Your task to perform on an android device: empty trash in google photos Image 0: 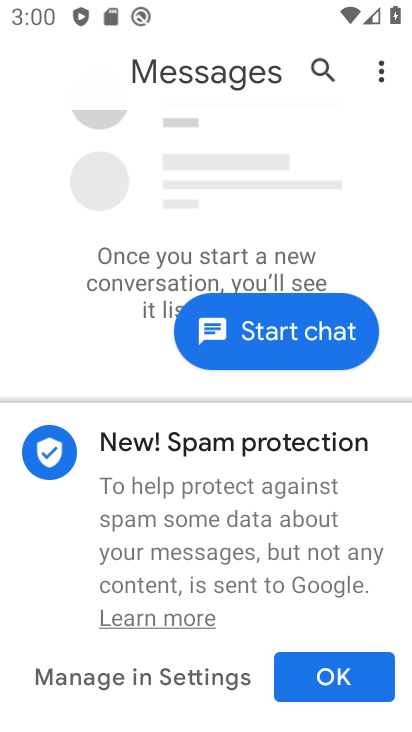
Step 0: press home button
Your task to perform on an android device: empty trash in google photos Image 1: 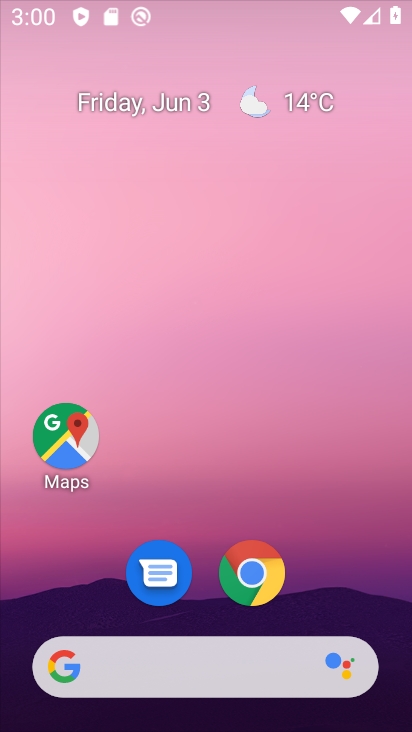
Step 1: drag from (287, 689) to (298, 175)
Your task to perform on an android device: empty trash in google photos Image 2: 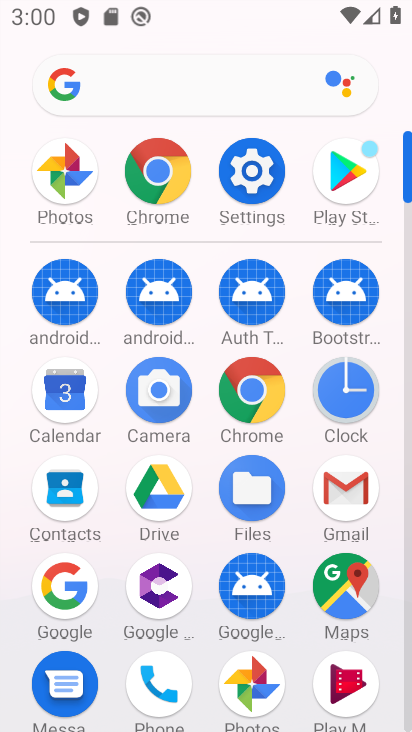
Step 2: click (246, 669)
Your task to perform on an android device: empty trash in google photos Image 3: 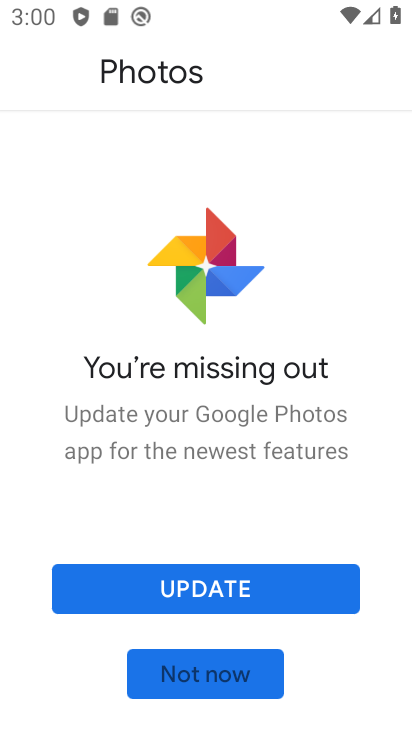
Step 3: click (239, 598)
Your task to perform on an android device: empty trash in google photos Image 4: 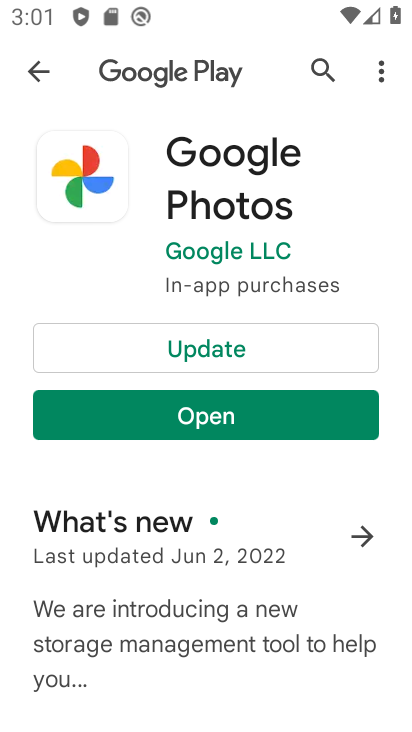
Step 4: click (227, 357)
Your task to perform on an android device: empty trash in google photos Image 5: 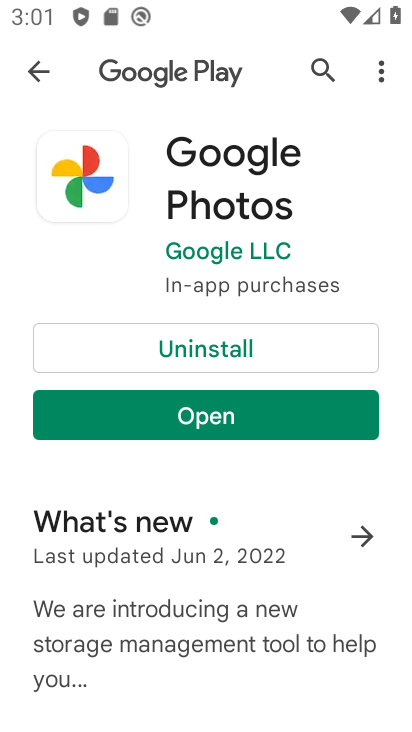
Step 5: click (295, 407)
Your task to perform on an android device: empty trash in google photos Image 6: 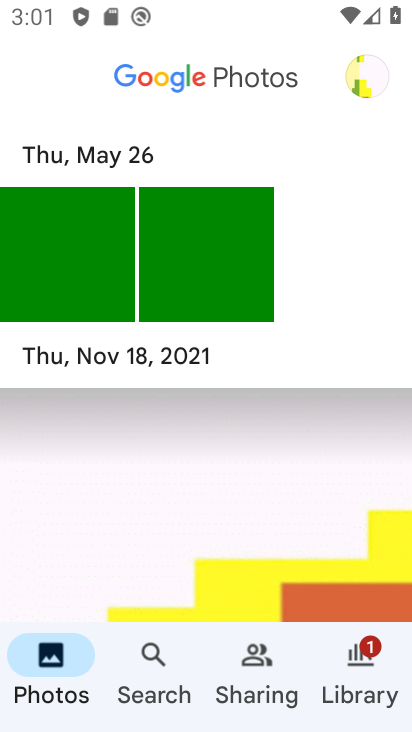
Step 6: click (367, 81)
Your task to perform on an android device: empty trash in google photos Image 7: 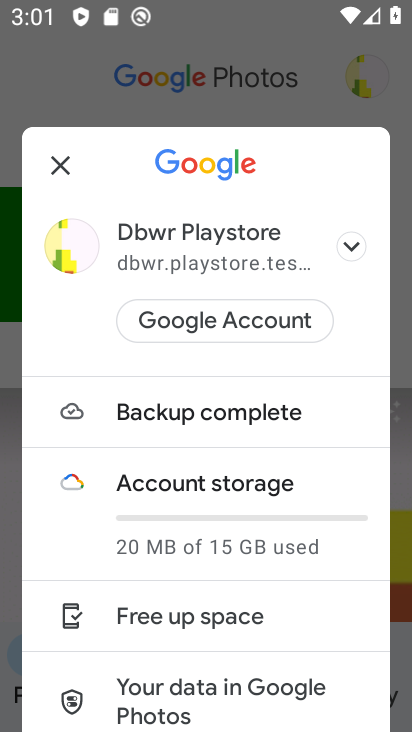
Step 7: click (62, 154)
Your task to perform on an android device: empty trash in google photos Image 8: 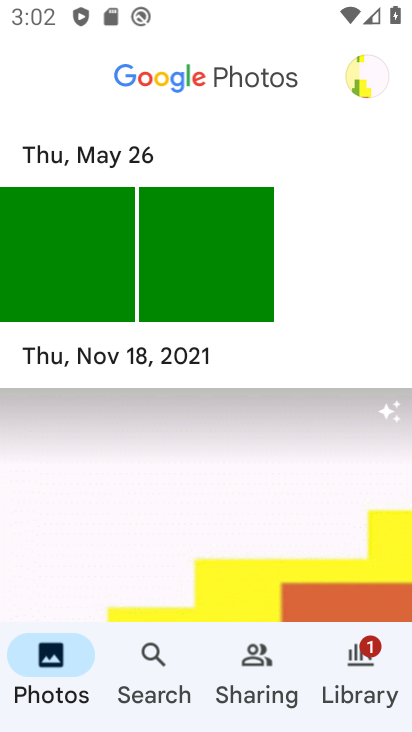
Step 8: click (357, 665)
Your task to perform on an android device: empty trash in google photos Image 9: 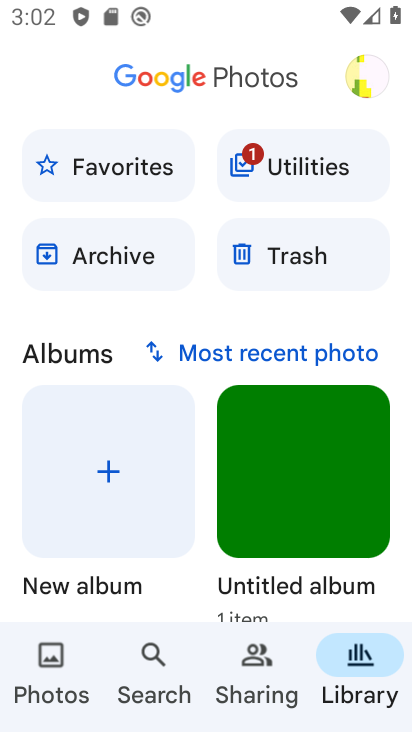
Step 9: click (290, 265)
Your task to perform on an android device: empty trash in google photos Image 10: 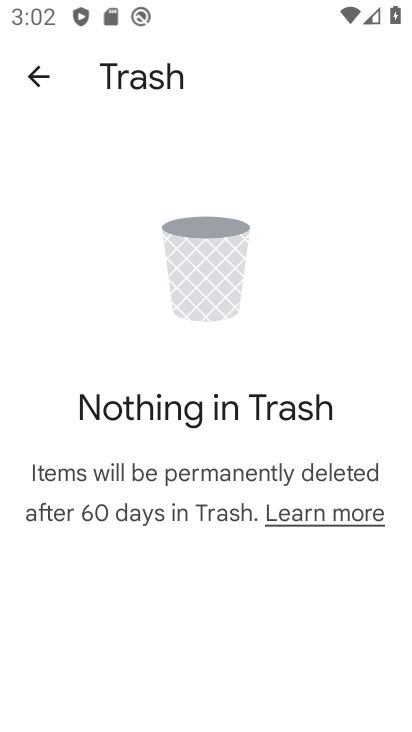
Step 10: task complete